Your task to perform on an android device: turn notification dots off Image 0: 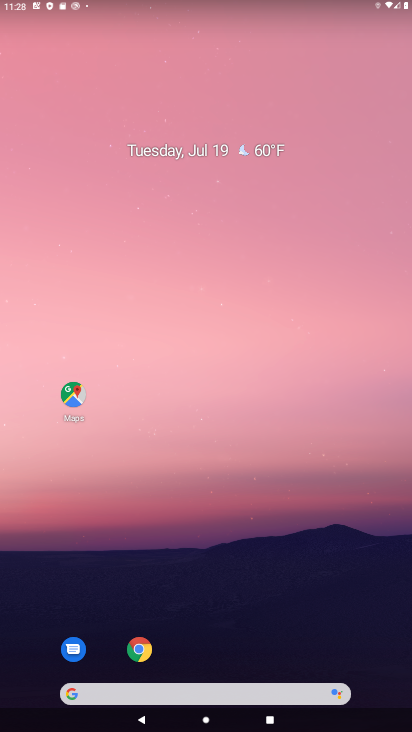
Step 0: drag from (212, 692) to (265, 42)
Your task to perform on an android device: turn notification dots off Image 1: 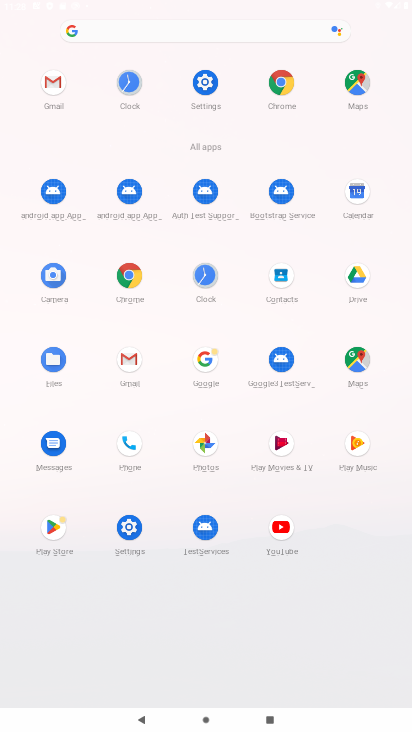
Step 1: click (125, 546)
Your task to perform on an android device: turn notification dots off Image 2: 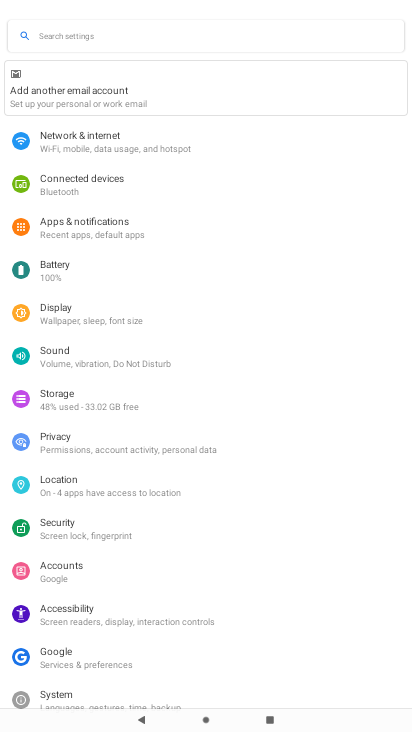
Step 2: click (69, 221)
Your task to perform on an android device: turn notification dots off Image 3: 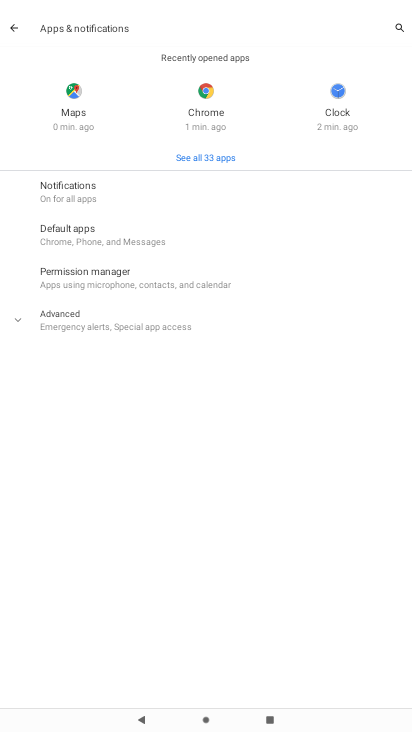
Step 3: click (76, 192)
Your task to perform on an android device: turn notification dots off Image 4: 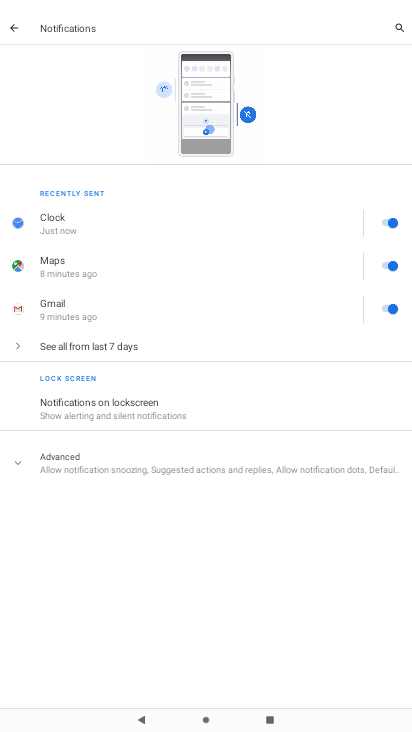
Step 4: click (123, 468)
Your task to perform on an android device: turn notification dots off Image 5: 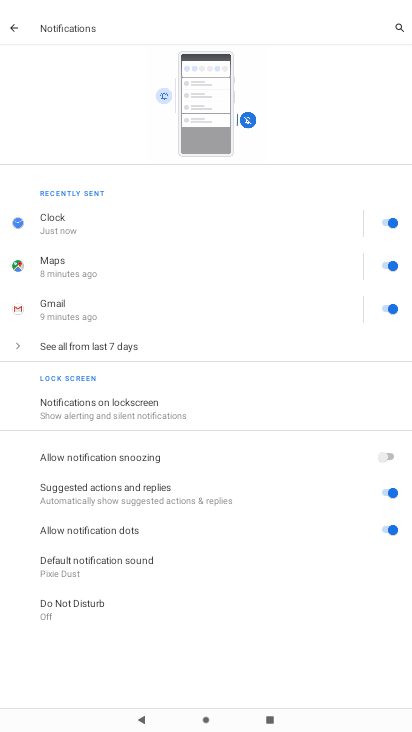
Step 5: click (394, 526)
Your task to perform on an android device: turn notification dots off Image 6: 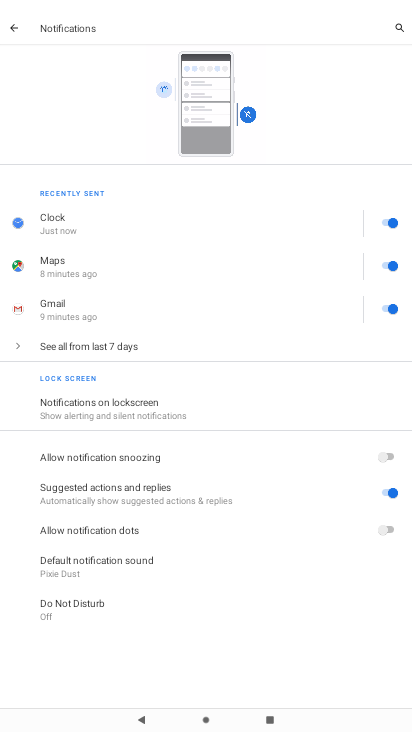
Step 6: task complete